Your task to perform on an android device: turn off priority inbox in the gmail app Image 0: 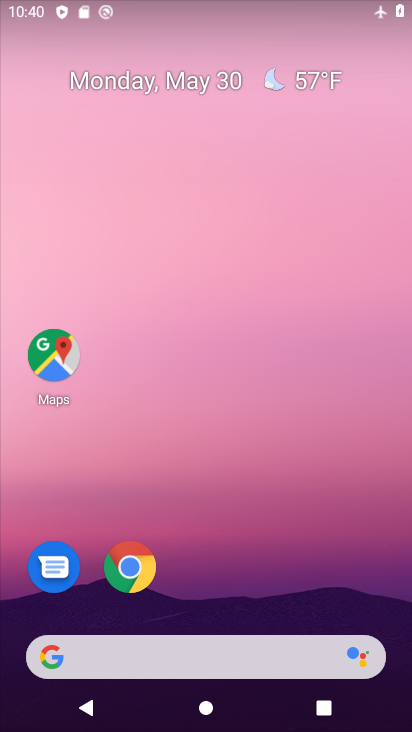
Step 0: drag from (213, 593) to (177, 170)
Your task to perform on an android device: turn off priority inbox in the gmail app Image 1: 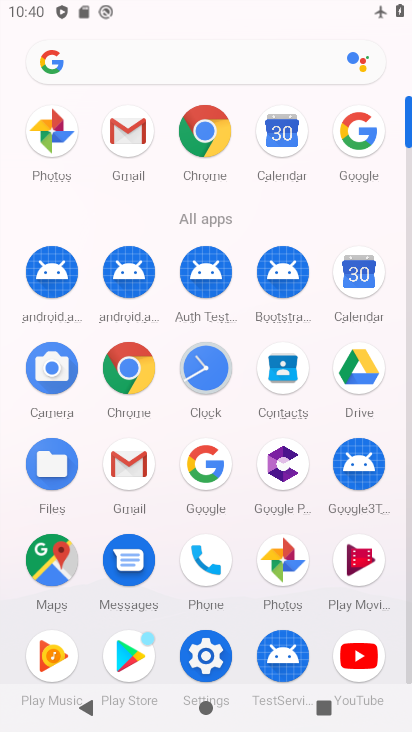
Step 1: click (145, 155)
Your task to perform on an android device: turn off priority inbox in the gmail app Image 2: 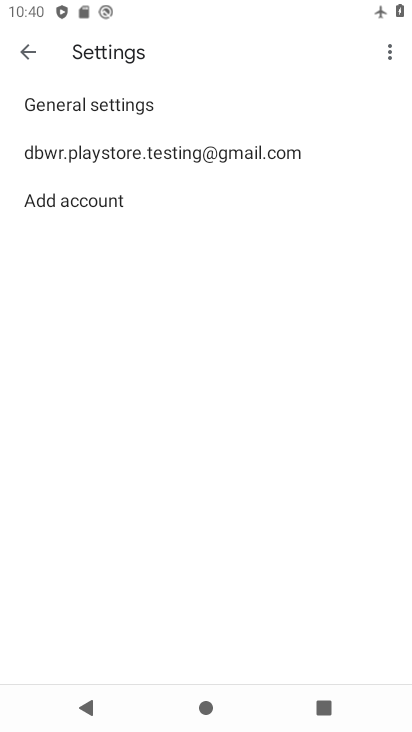
Step 2: click (95, 157)
Your task to perform on an android device: turn off priority inbox in the gmail app Image 3: 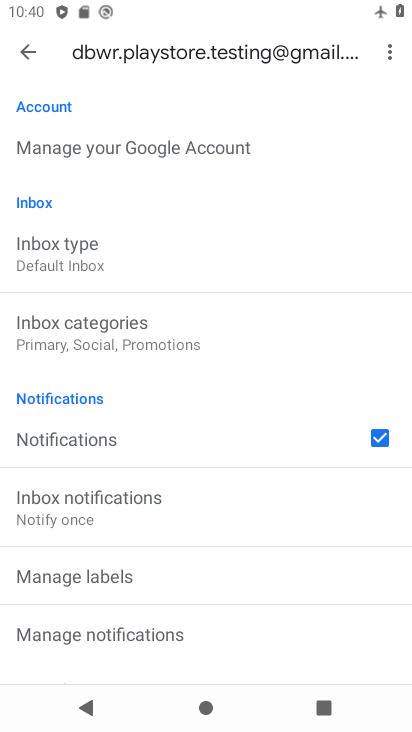
Step 3: click (84, 349)
Your task to perform on an android device: turn off priority inbox in the gmail app Image 4: 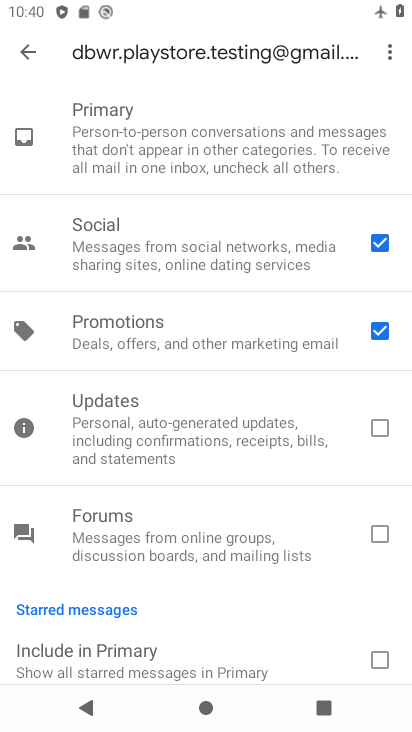
Step 4: drag from (161, 467) to (171, 431)
Your task to perform on an android device: turn off priority inbox in the gmail app Image 5: 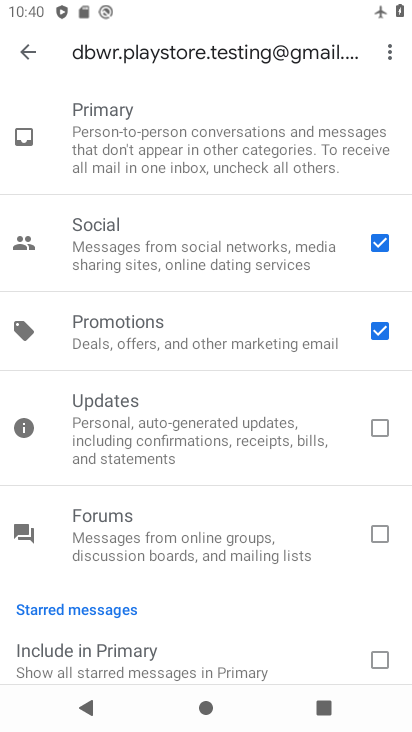
Step 5: click (30, 66)
Your task to perform on an android device: turn off priority inbox in the gmail app Image 6: 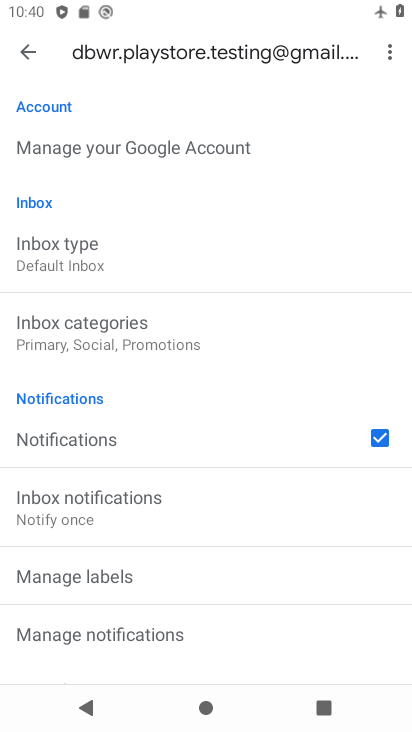
Step 6: click (139, 266)
Your task to perform on an android device: turn off priority inbox in the gmail app Image 7: 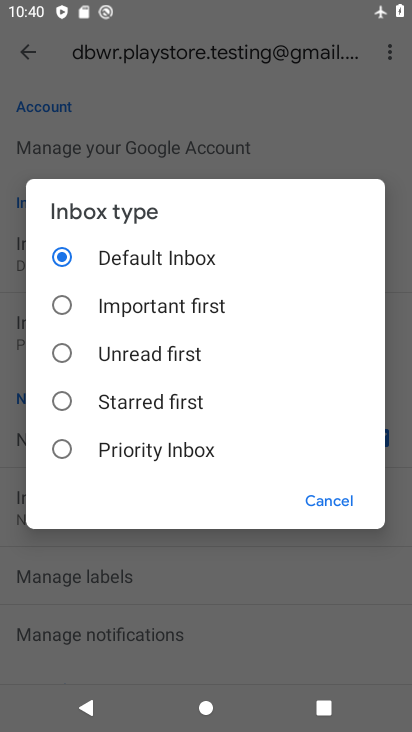
Step 7: task complete